Your task to perform on an android device: turn off airplane mode Image 0: 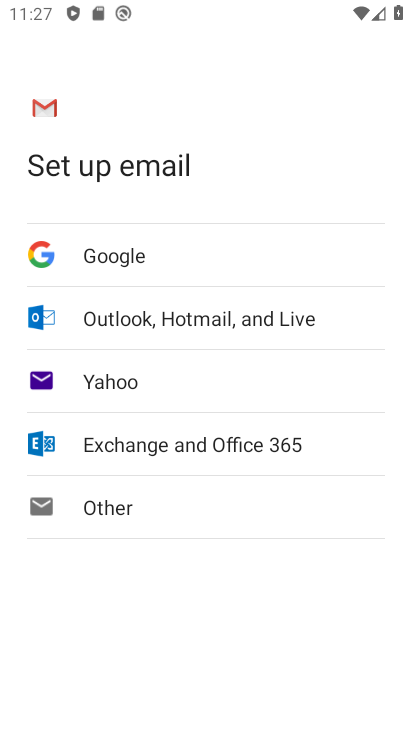
Step 0: press home button
Your task to perform on an android device: turn off airplane mode Image 1: 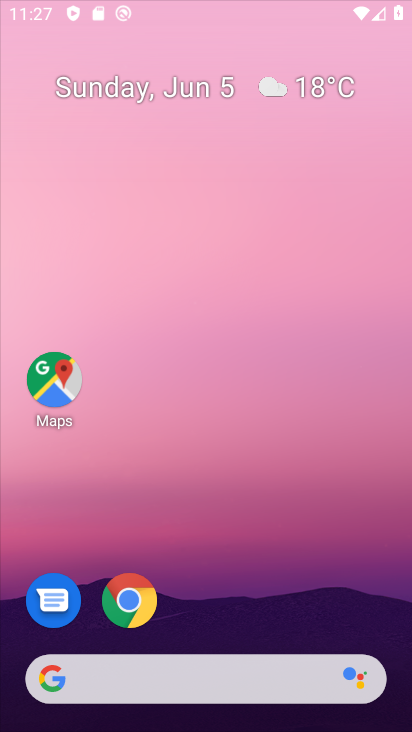
Step 1: task complete